Your task to perform on an android device: Play the last video I watched on Youtube Image 0: 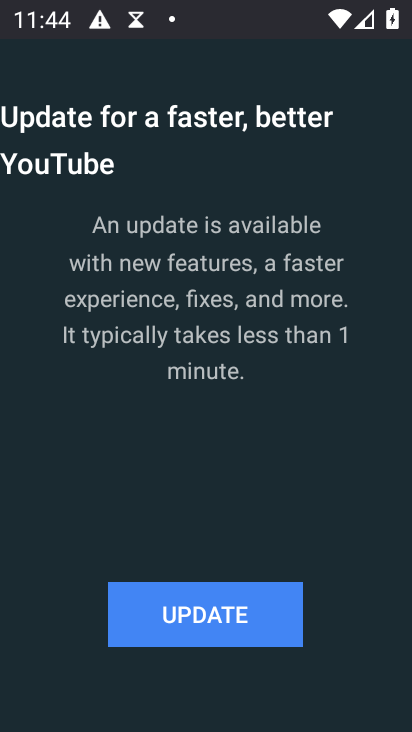
Step 0: press home button
Your task to perform on an android device: Play the last video I watched on Youtube Image 1: 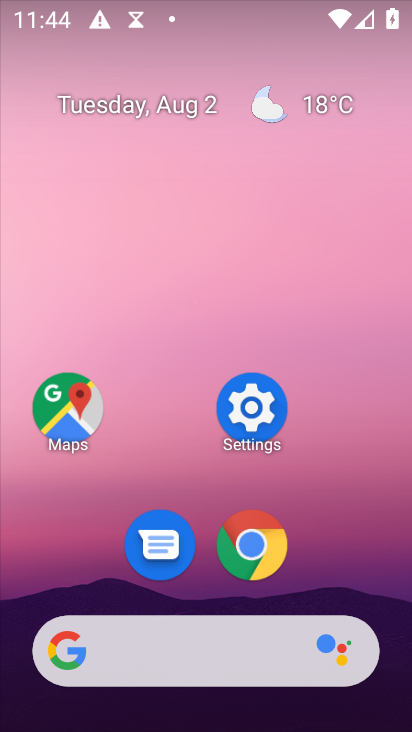
Step 1: drag from (177, 646) to (365, 43)
Your task to perform on an android device: Play the last video I watched on Youtube Image 2: 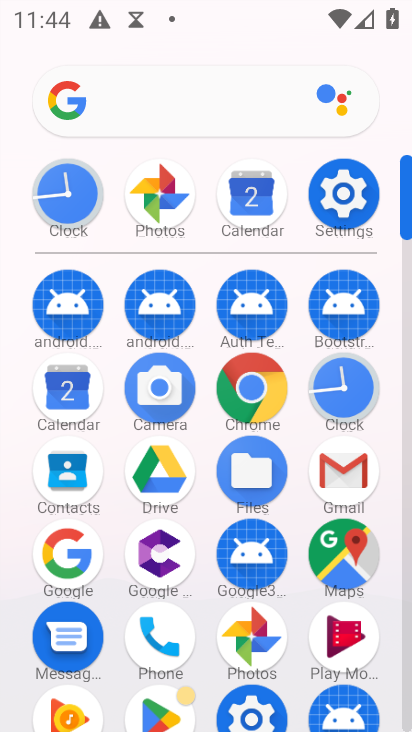
Step 2: drag from (206, 623) to (365, 180)
Your task to perform on an android device: Play the last video I watched on Youtube Image 3: 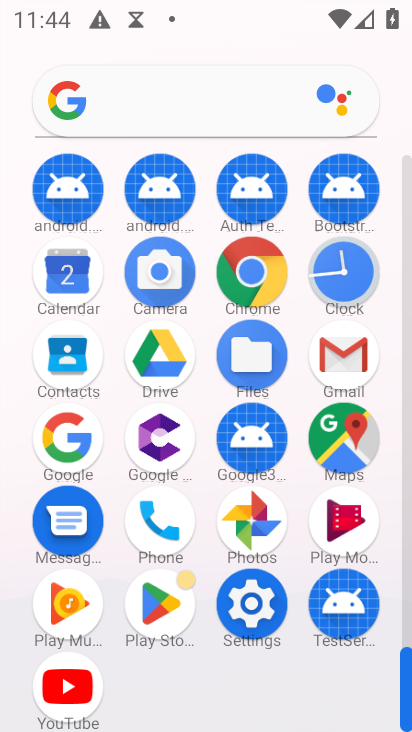
Step 3: click (66, 694)
Your task to perform on an android device: Play the last video I watched on Youtube Image 4: 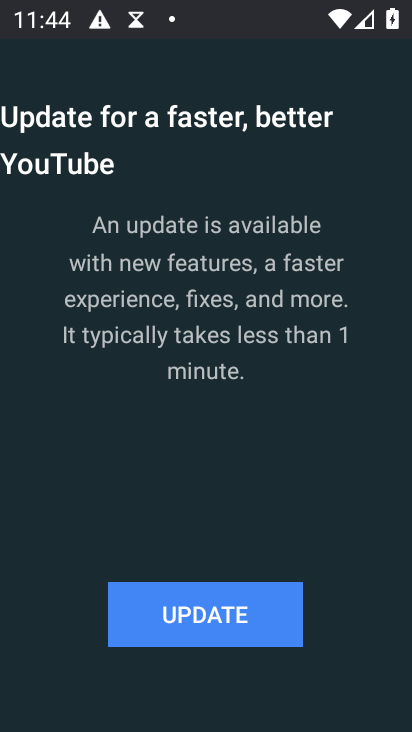
Step 4: click (190, 609)
Your task to perform on an android device: Play the last video I watched on Youtube Image 5: 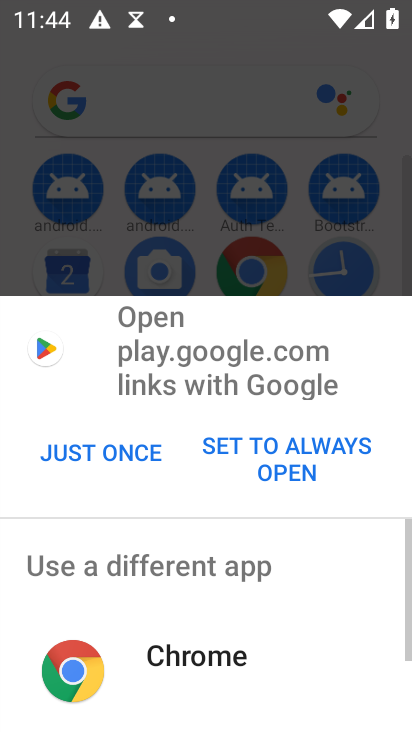
Step 5: click (121, 437)
Your task to perform on an android device: Play the last video I watched on Youtube Image 6: 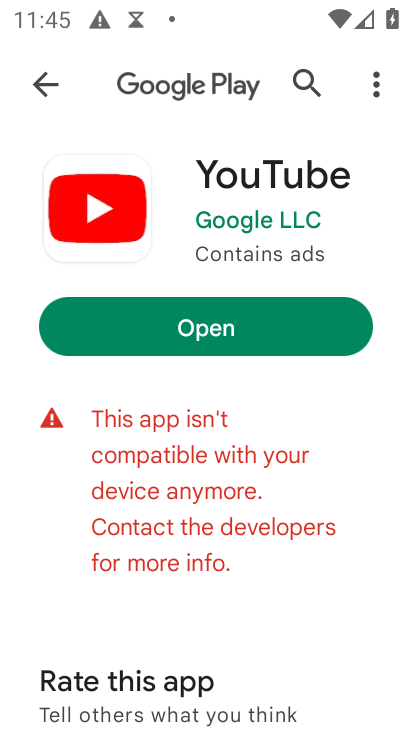
Step 6: task complete